Your task to perform on an android device: toggle pop-ups in chrome Image 0: 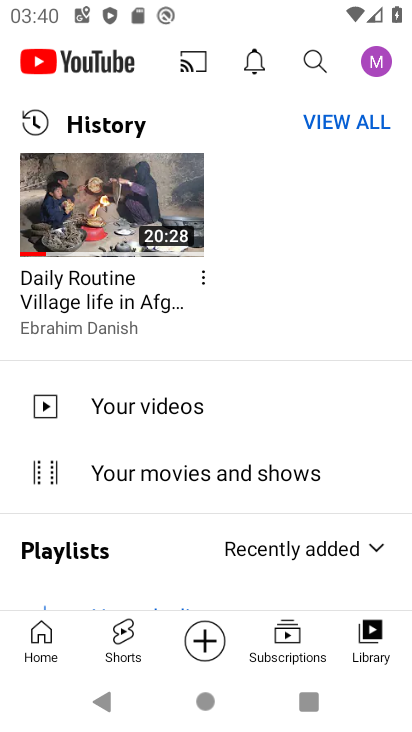
Step 0: press home button
Your task to perform on an android device: toggle pop-ups in chrome Image 1: 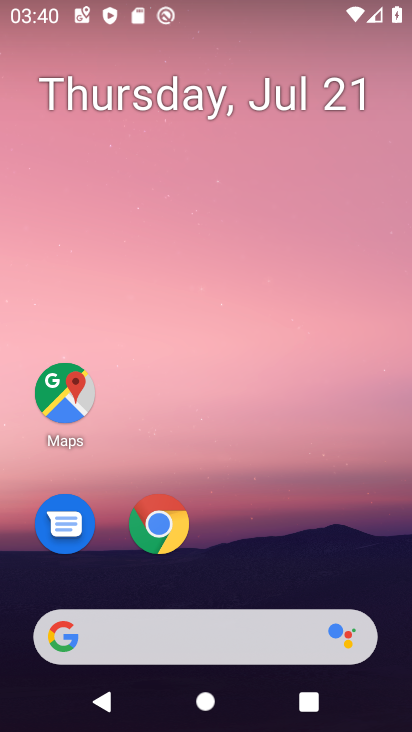
Step 1: click (163, 518)
Your task to perform on an android device: toggle pop-ups in chrome Image 2: 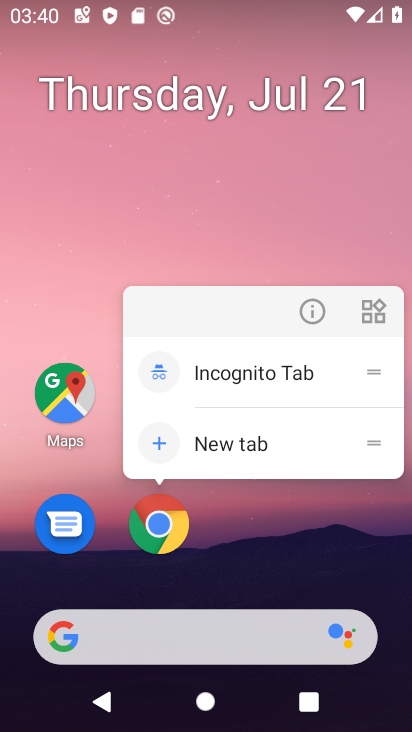
Step 2: click (313, 307)
Your task to perform on an android device: toggle pop-ups in chrome Image 3: 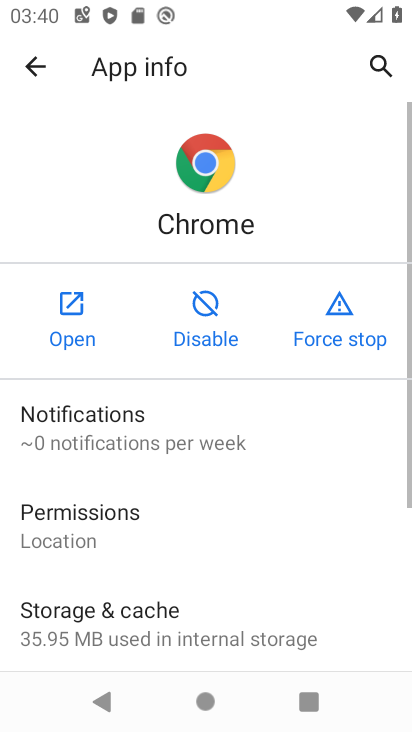
Step 3: drag from (244, 554) to (294, 11)
Your task to perform on an android device: toggle pop-ups in chrome Image 4: 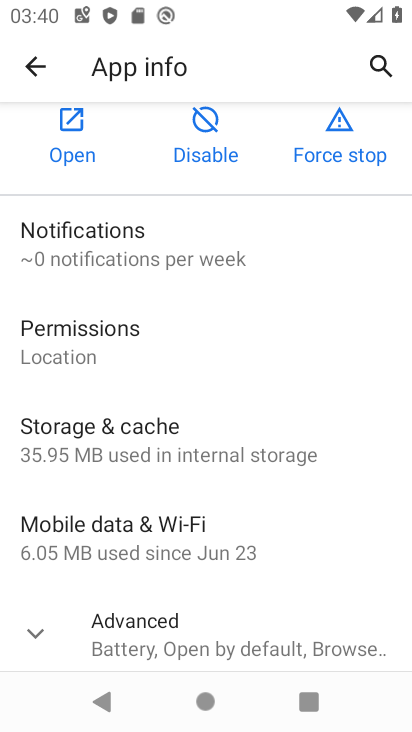
Step 4: click (38, 630)
Your task to perform on an android device: toggle pop-ups in chrome Image 5: 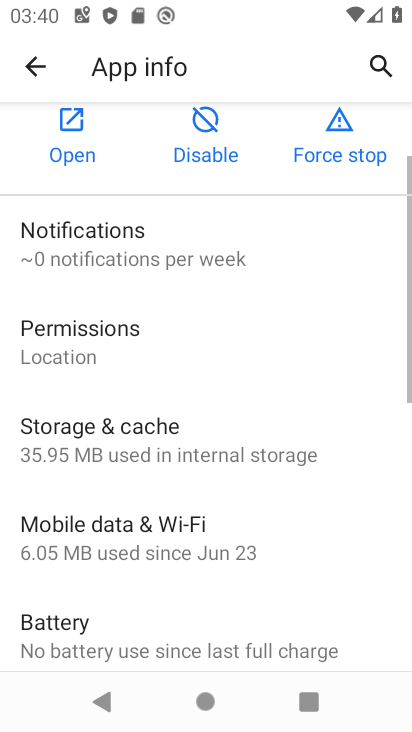
Step 5: drag from (235, 577) to (284, 156)
Your task to perform on an android device: toggle pop-ups in chrome Image 6: 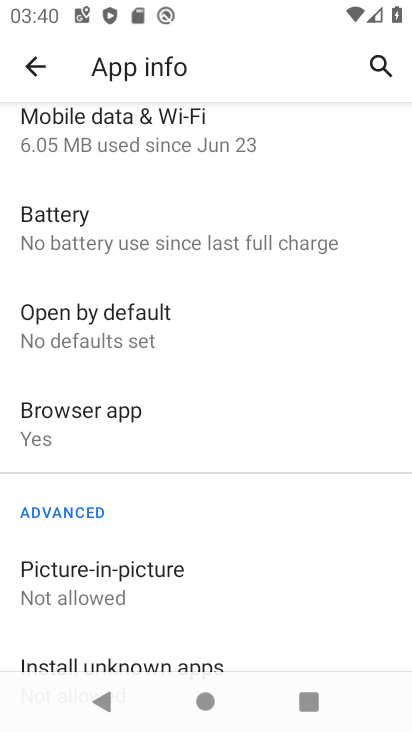
Step 6: click (159, 583)
Your task to perform on an android device: toggle pop-ups in chrome Image 7: 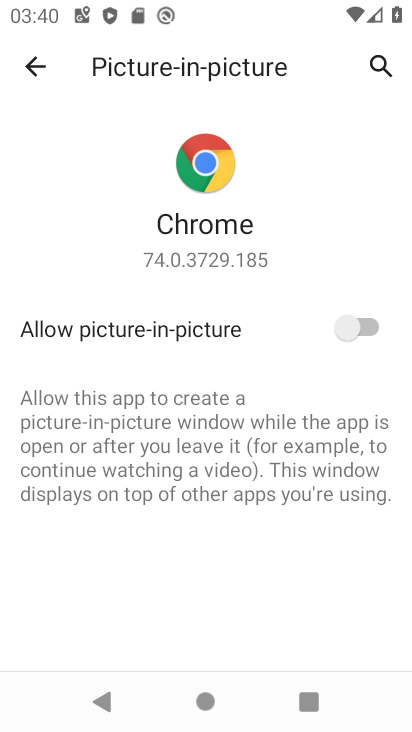
Step 7: click (369, 317)
Your task to perform on an android device: toggle pop-ups in chrome Image 8: 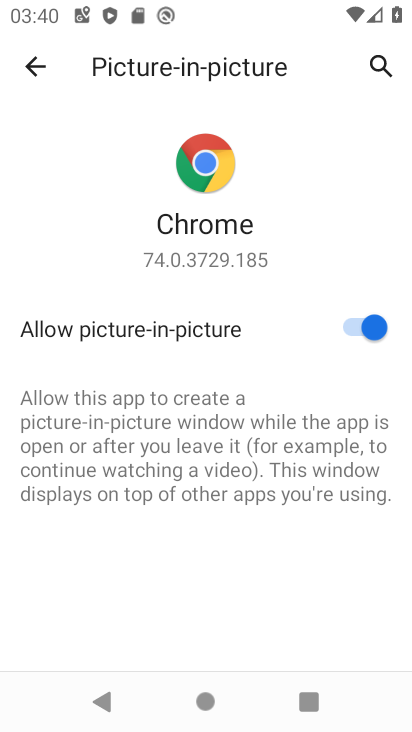
Step 8: task complete